Your task to perform on an android device: check the backup settings in the google photos Image 0: 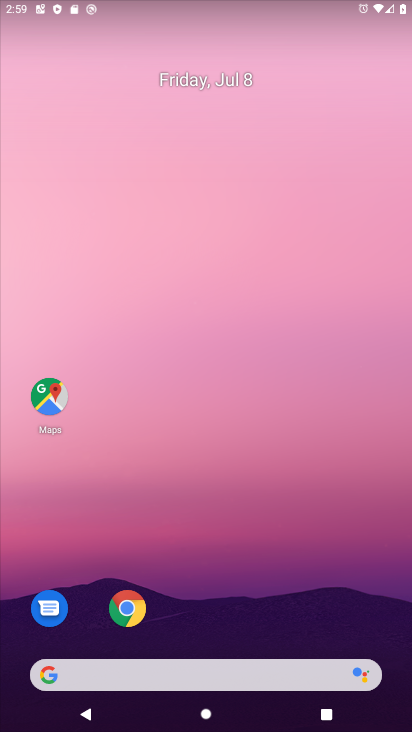
Step 0: drag from (309, 580) to (327, 92)
Your task to perform on an android device: check the backup settings in the google photos Image 1: 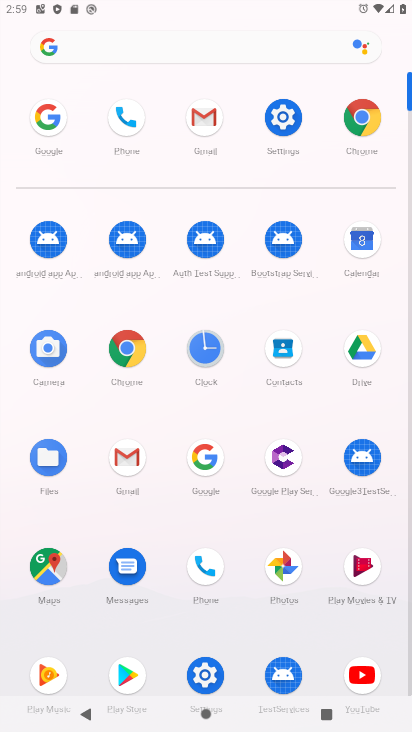
Step 1: click (295, 564)
Your task to perform on an android device: check the backup settings in the google photos Image 2: 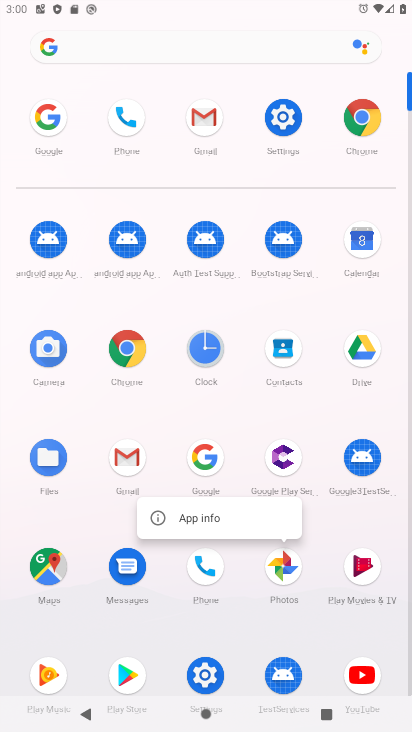
Step 2: click (289, 550)
Your task to perform on an android device: check the backup settings in the google photos Image 3: 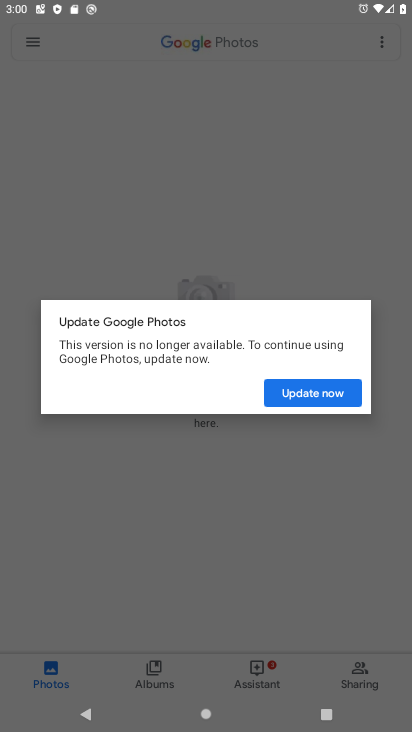
Step 3: click (296, 392)
Your task to perform on an android device: check the backup settings in the google photos Image 4: 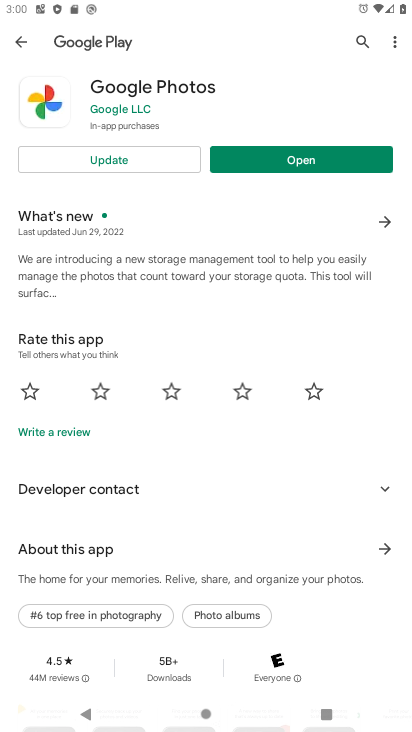
Step 4: click (163, 158)
Your task to perform on an android device: check the backup settings in the google photos Image 5: 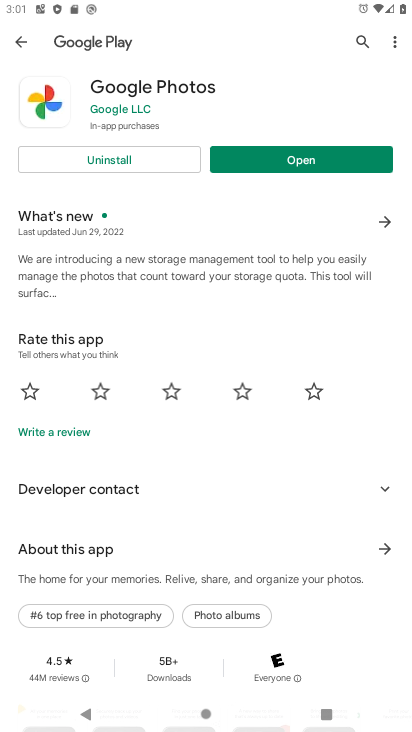
Step 5: click (311, 161)
Your task to perform on an android device: check the backup settings in the google photos Image 6: 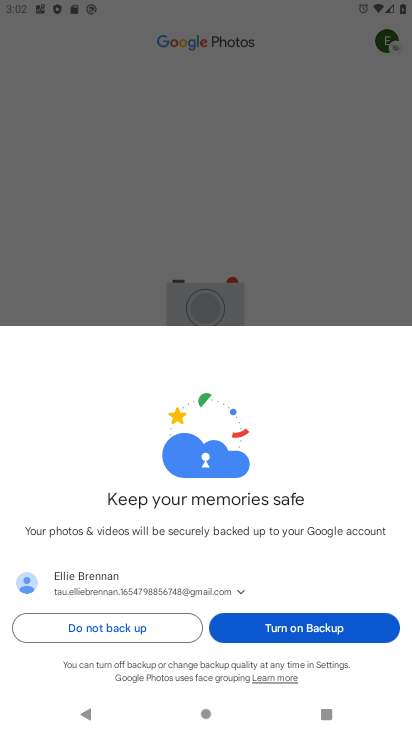
Step 6: click (301, 620)
Your task to perform on an android device: check the backup settings in the google photos Image 7: 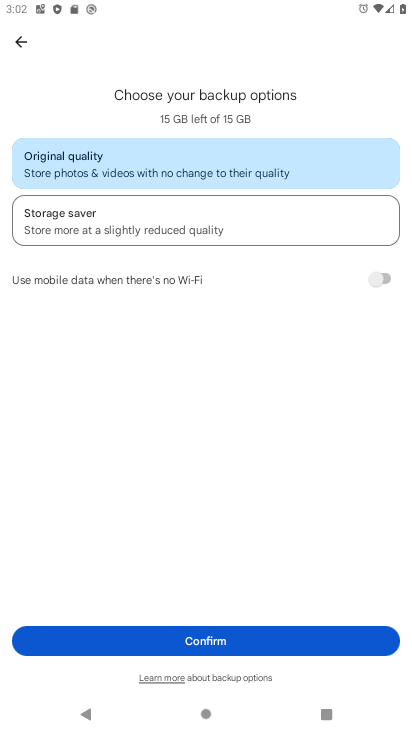
Step 7: click (230, 657)
Your task to perform on an android device: check the backup settings in the google photos Image 8: 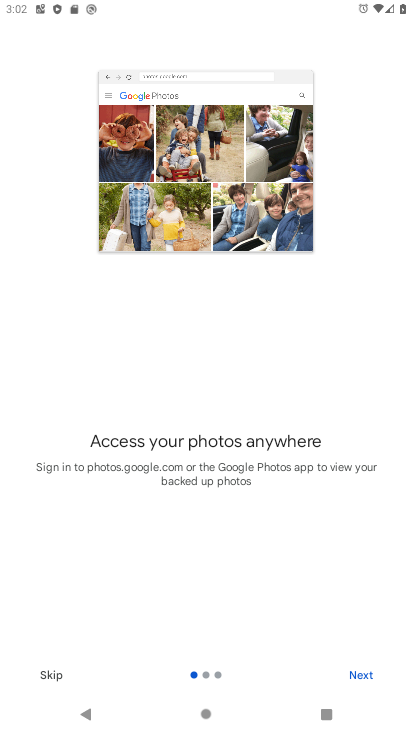
Step 8: click (370, 670)
Your task to perform on an android device: check the backup settings in the google photos Image 9: 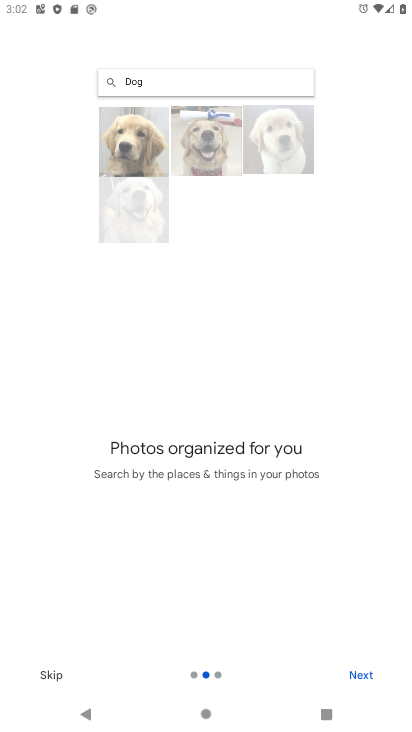
Step 9: click (370, 670)
Your task to perform on an android device: check the backup settings in the google photos Image 10: 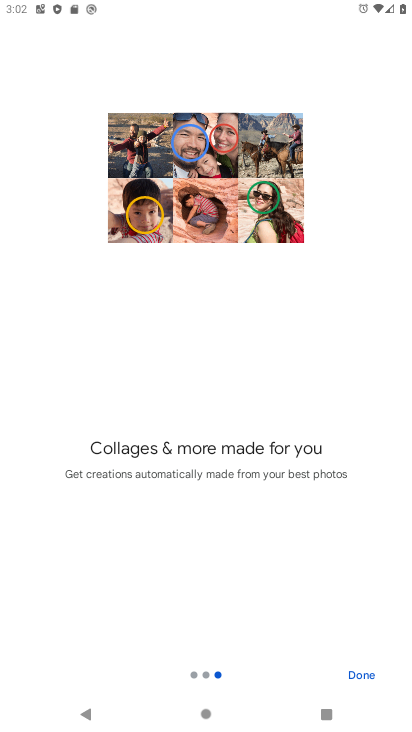
Step 10: click (356, 670)
Your task to perform on an android device: check the backup settings in the google photos Image 11: 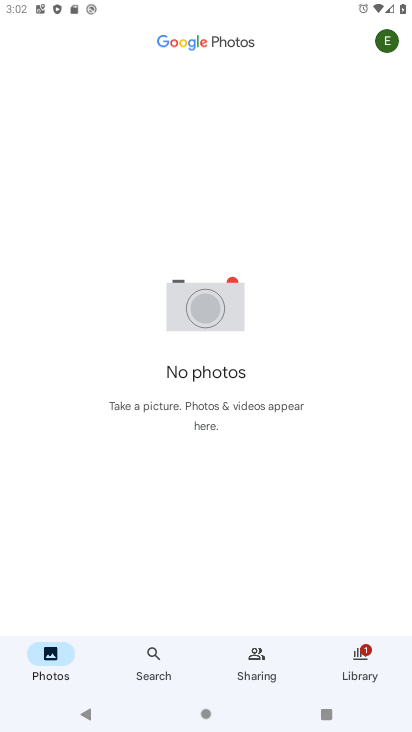
Step 11: click (383, 38)
Your task to perform on an android device: check the backup settings in the google photos Image 12: 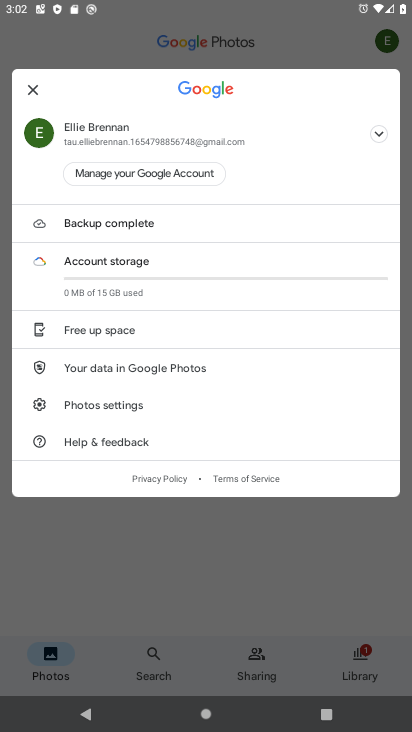
Step 12: click (128, 404)
Your task to perform on an android device: check the backup settings in the google photos Image 13: 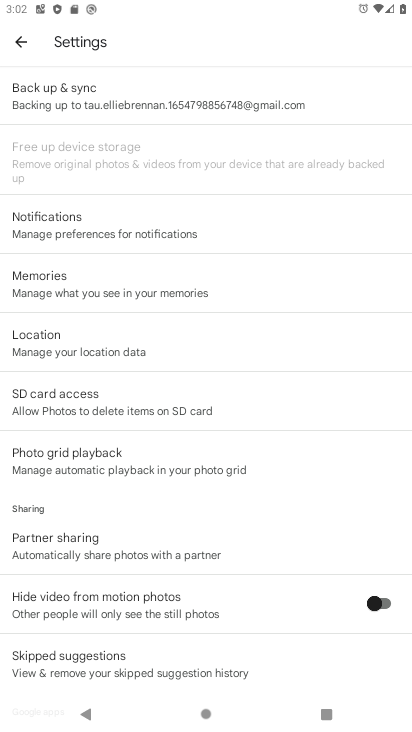
Step 13: click (116, 104)
Your task to perform on an android device: check the backup settings in the google photos Image 14: 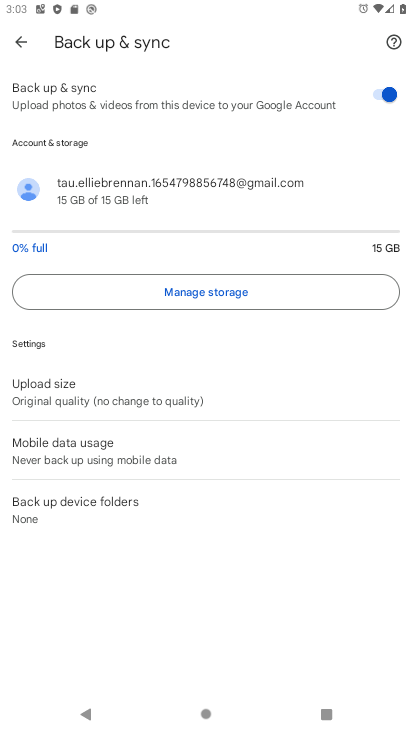
Step 14: task complete